Your task to perform on an android device: move a message to another label in the gmail app Image 0: 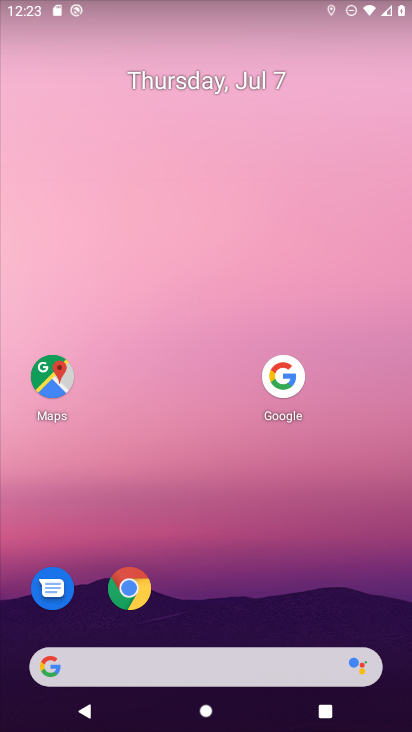
Step 0: drag from (226, 617) to (293, 123)
Your task to perform on an android device: move a message to another label in the gmail app Image 1: 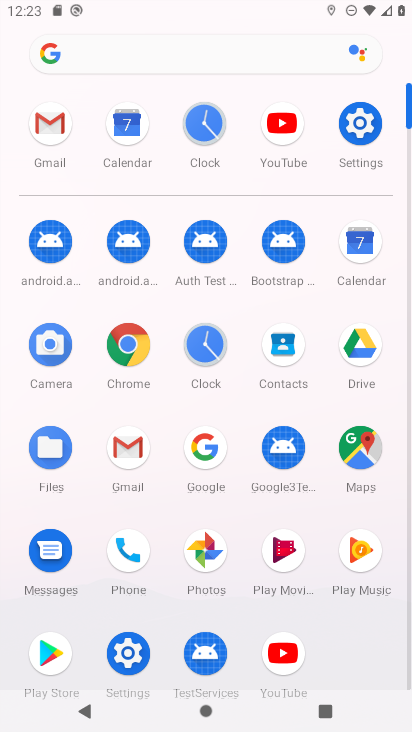
Step 1: click (122, 453)
Your task to perform on an android device: move a message to another label in the gmail app Image 2: 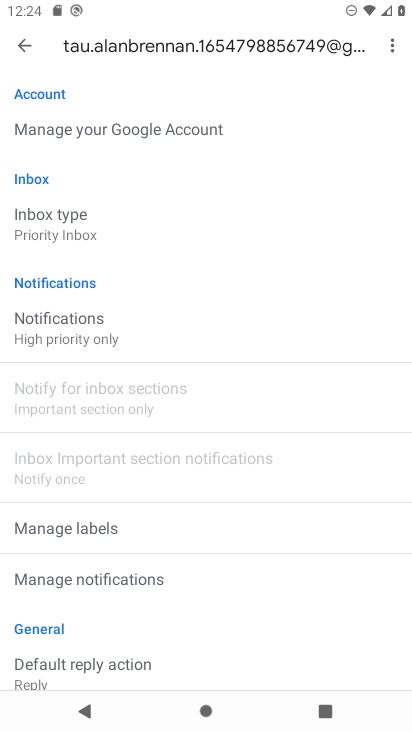
Step 2: click (19, 42)
Your task to perform on an android device: move a message to another label in the gmail app Image 3: 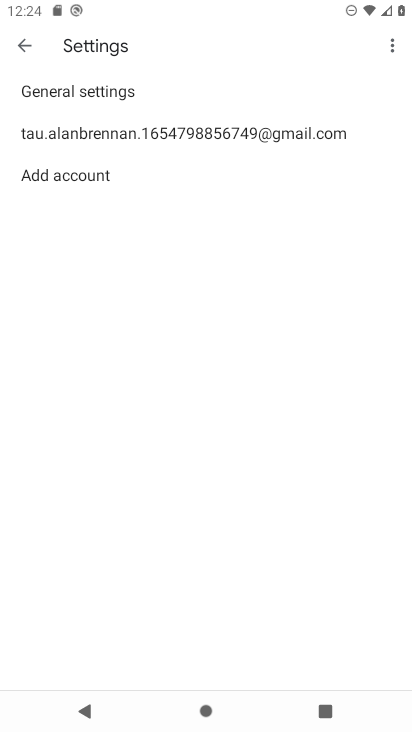
Step 3: click (19, 42)
Your task to perform on an android device: move a message to another label in the gmail app Image 4: 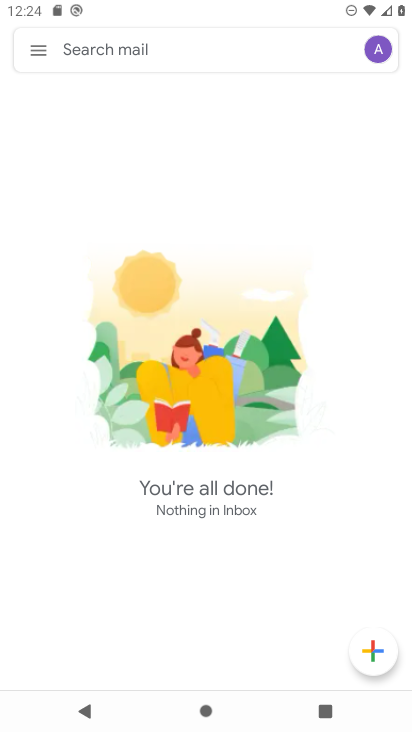
Step 4: task complete